Your task to perform on an android device: turn on showing notifications on the lock screen Image 0: 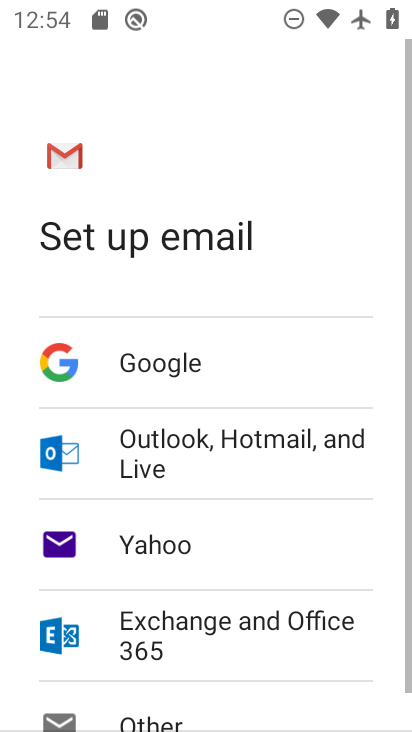
Step 0: press home button
Your task to perform on an android device: turn on showing notifications on the lock screen Image 1: 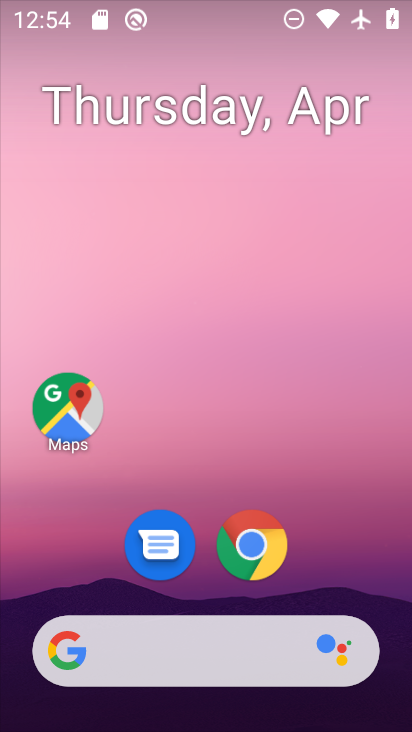
Step 1: drag from (349, 574) to (318, 106)
Your task to perform on an android device: turn on showing notifications on the lock screen Image 2: 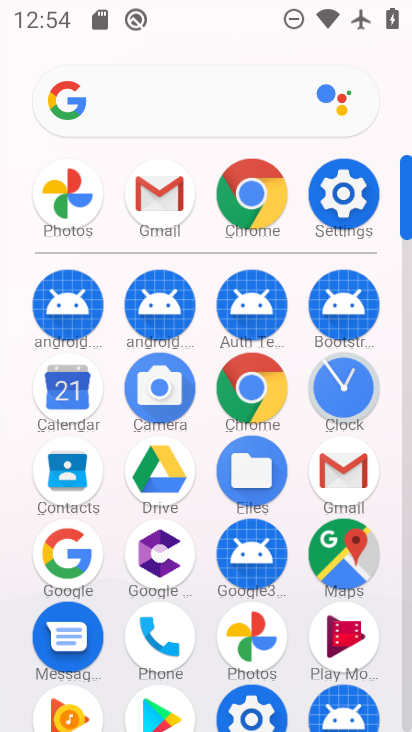
Step 2: click (347, 194)
Your task to perform on an android device: turn on showing notifications on the lock screen Image 3: 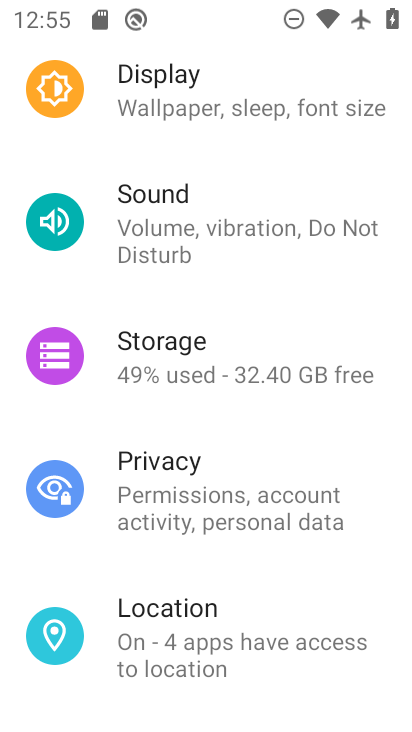
Step 3: drag from (252, 167) to (191, 712)
Your task to perform on an android device: turn on showing notifications on the lock screen Image 4: 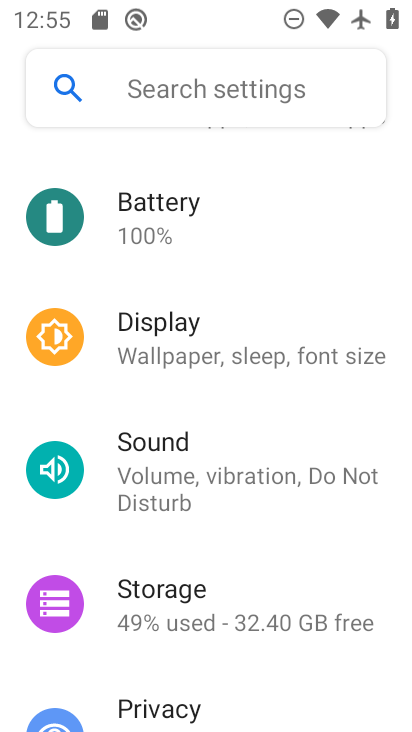
Step 4: drag from (207, 207) to (148, 673)
Your task to perform on an android device: turn on showing notifications on the lock screen Image 5: 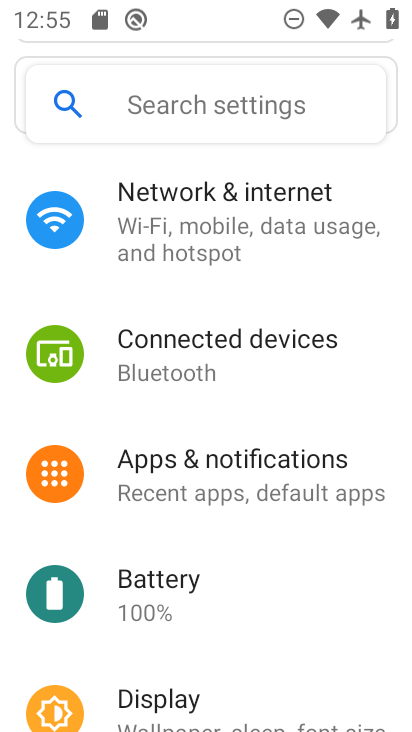
Step 5: click (149, 478)
Your task to perform on an android device: turn on showing notifications on the lock screen Image 6: 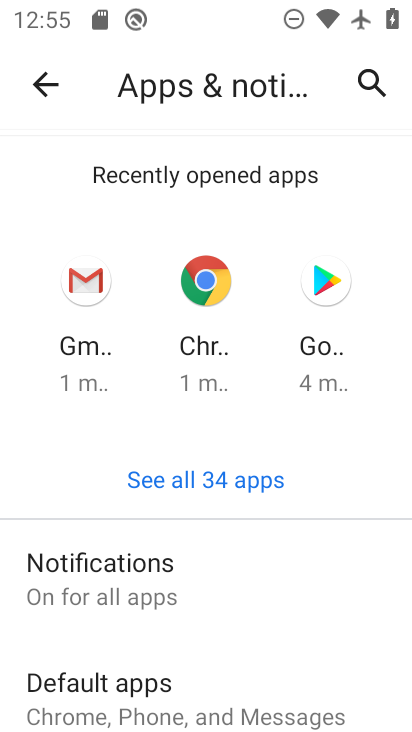
Step 6: click (142, 580)
Your task to perform on an android device: turn on showing notifications on the lock screen Image 7: 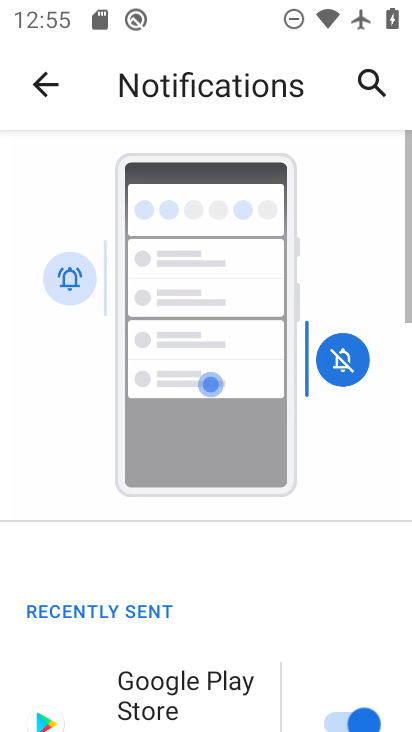
Step 7: drag from (140, 597) to (378, 103)
Your task to perform on an android device: turn on showing notifications on the lock screen Image 8: 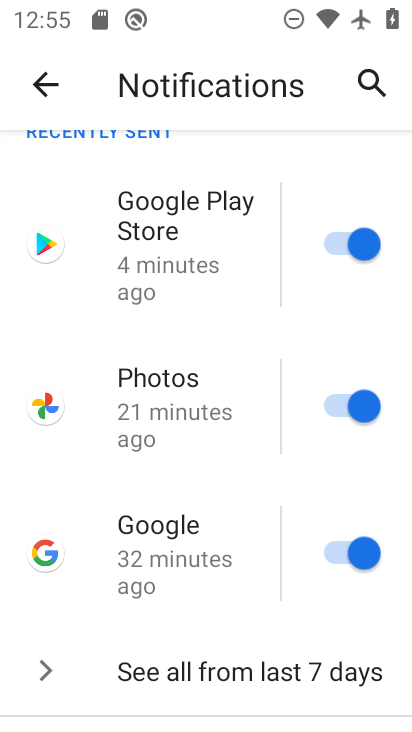
Step 8: drag from (170, 671) to (300, 187)
Your task to perform on an android device: turn on showing notifications on the lock screen Image 9: 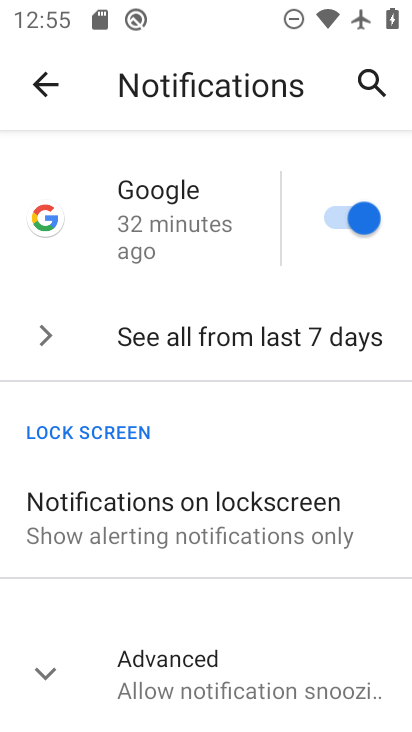
Step 9: click (120, 516)
Your task to perform on an android device: turn on showing notifications on the lock screen Image 10: 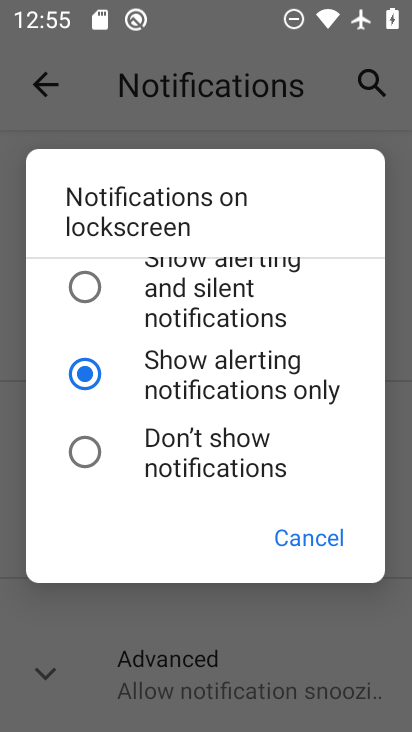
Step 10: click (144, 305)
Your task to perform on an android device: turn on showing notifications on the lock screen Image 11: 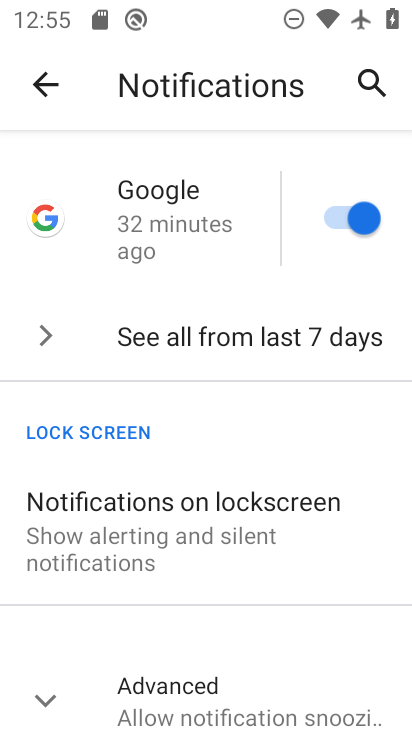
Step 11: task complete